Your task to perform on an android device: turn on bluetooth scan Image 0: 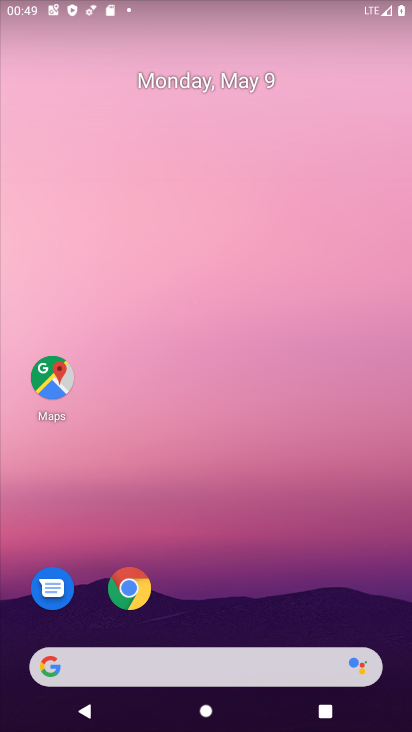
Step 0: drag from (256, 552) to (74, 76)
Your task to perform on an android device: turn on bluetooth scan Image 1: 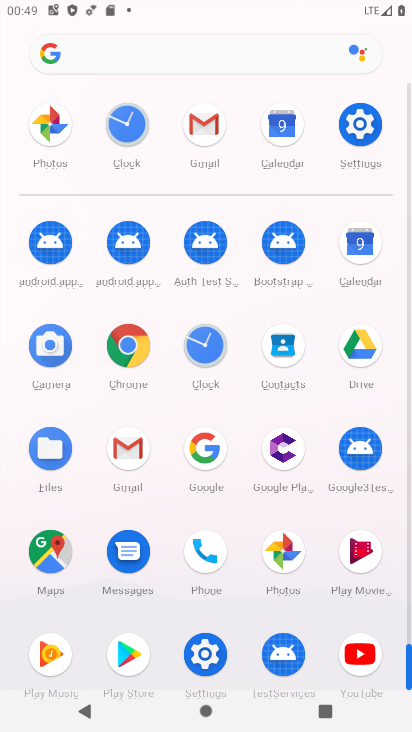
Step 1: click (356, 115)
Your task to perform on an android device: turn on bluetooth scan Image 2: 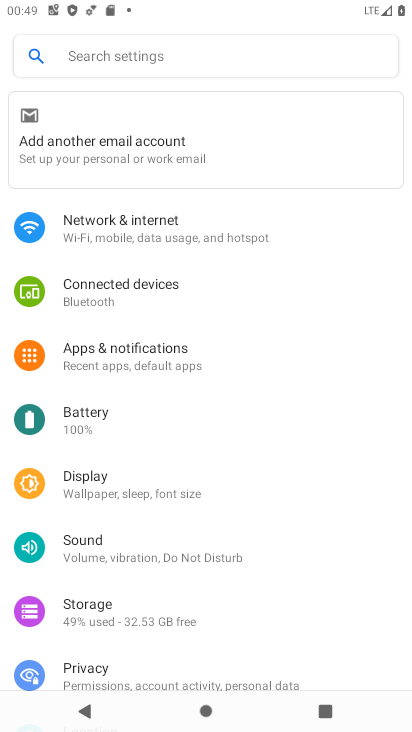
Step 2: drag from (184, 520) to (80, 249)
Your task to perform on an android device: turn on bluetooth scan Image 3: 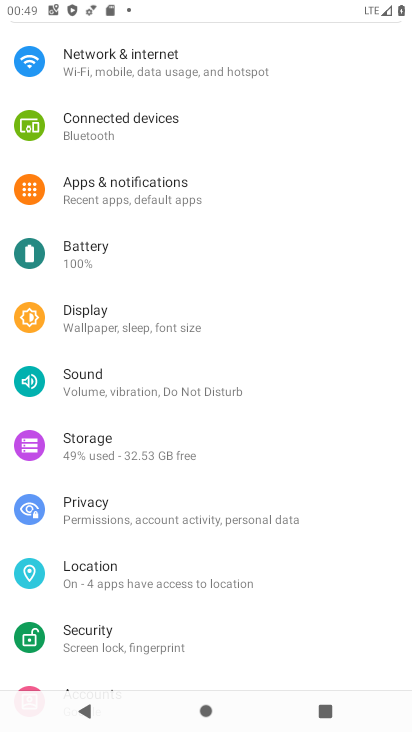
Step 3: click (84, 570)
Your task to perform on an android device: turn on bluetooth scan Image 4: 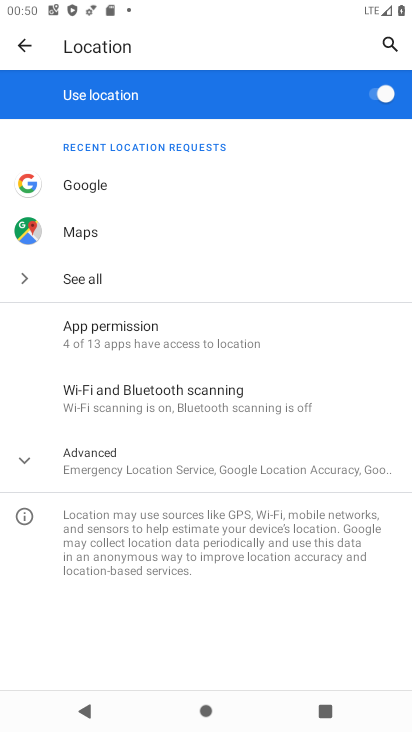
Step 4: click (200, 393)
Your task to perform on an android device: turn on bluetooth scan Image 5: 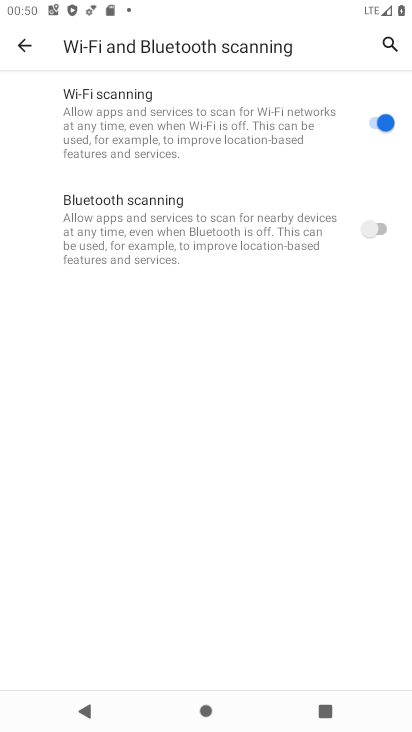
Step 5: click (370, 231)
Your task to perform on an android device: turn on bluetooth scan Image 6: 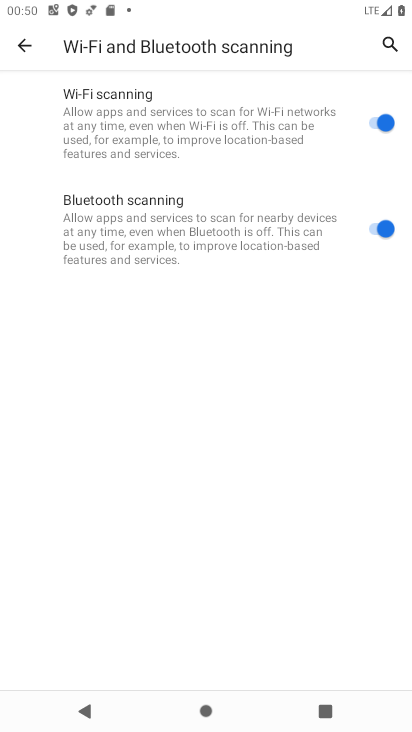
Step 6: task complete